Your task to perform on an android device: Go to ESPN.com Image 0: 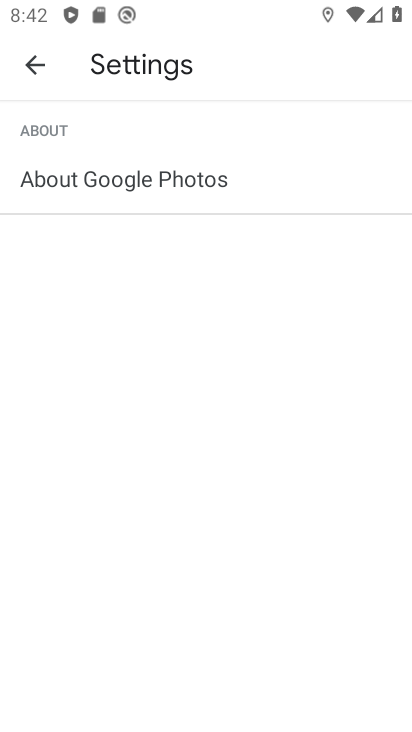
Step 0: press home button
Your task to perform on an android device: Go to ESPN.com Image 1: 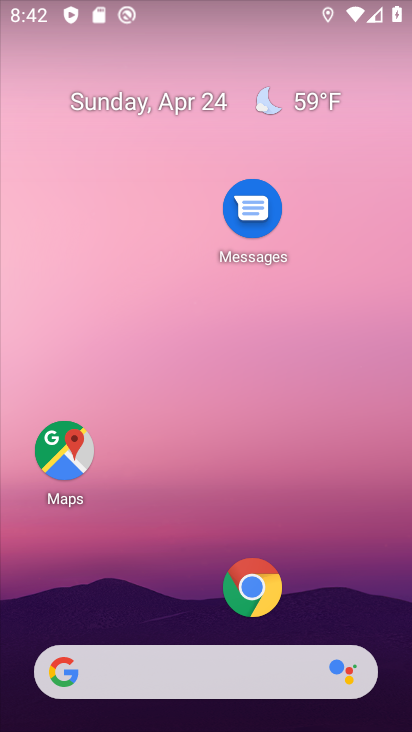
Step 1: click (243, 594)
Your task to perform on an android device: Go to ESPN.com Image 2: 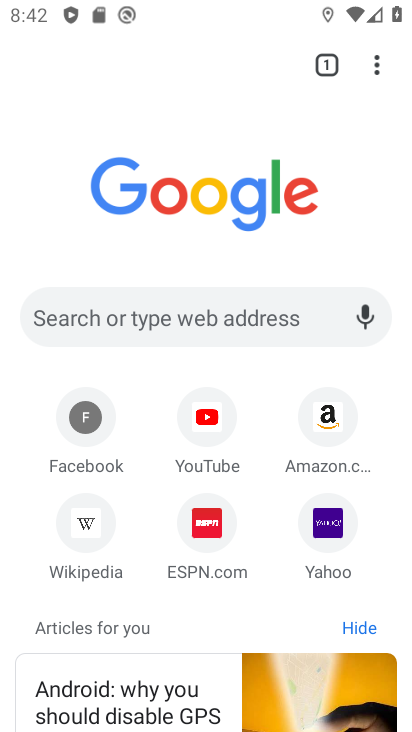
Step 2: click (159, 318)
Your task to perform on an android device: Go to ESPN.com Image 3: 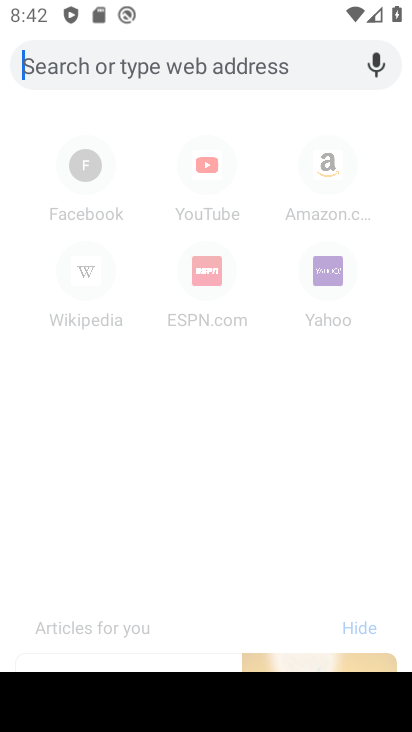
Step 3: type "ESPN.com"
Your task to perform on an android device: Go to ESPN.com Image 4: 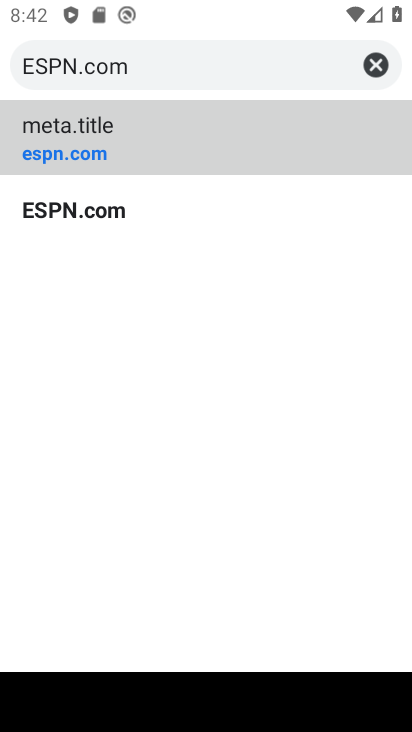
Step 4: click (97, 207)
Your task to perform on an android device: Go to ESPN.com Image 5: 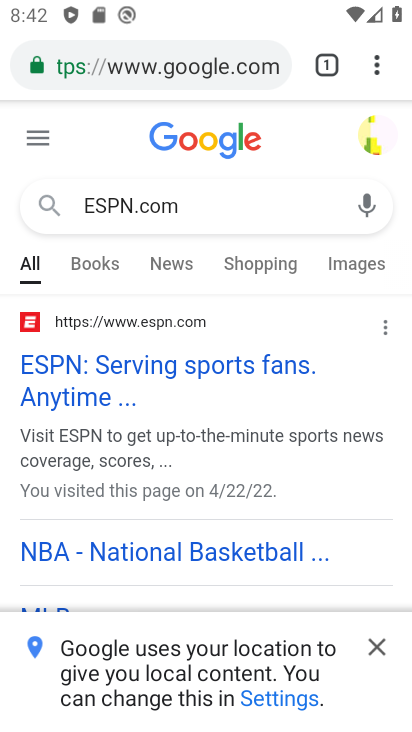
Step 5: task complete